Your task to perform on an android device: Open calendar and show me the second week of next month Image 0: 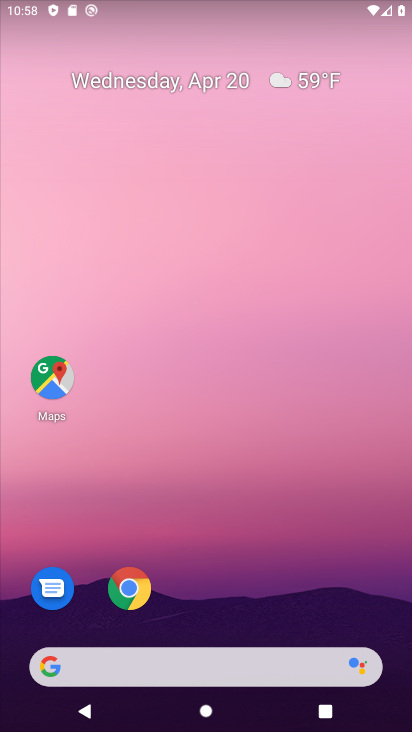
Step 0: drag from (223, 728) to (223, 129)
Your task to perform on an android device: Open calendar and show me the second week of next month Image 1: 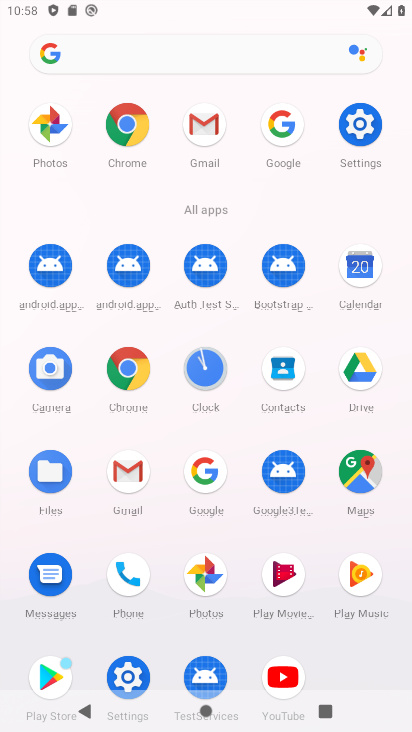
Step 1: click (359, 270)
Your task to perform on an android device: Open calendar and show me the second week of next month Image 2: 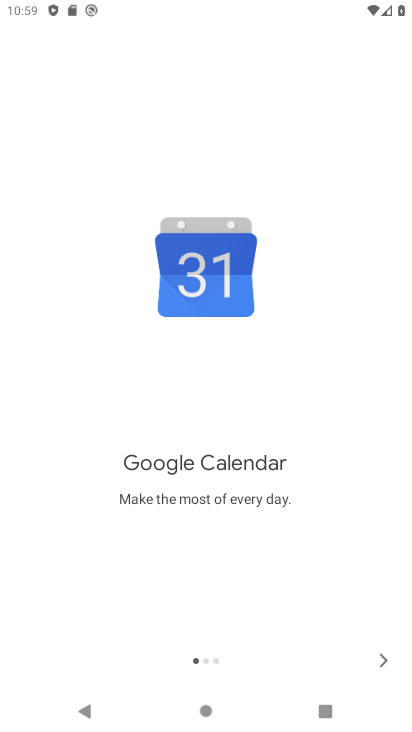
Step 2: click (382, 656)
Your task to perform on an android device: Open calendar and show me the second week of next month Image 3: 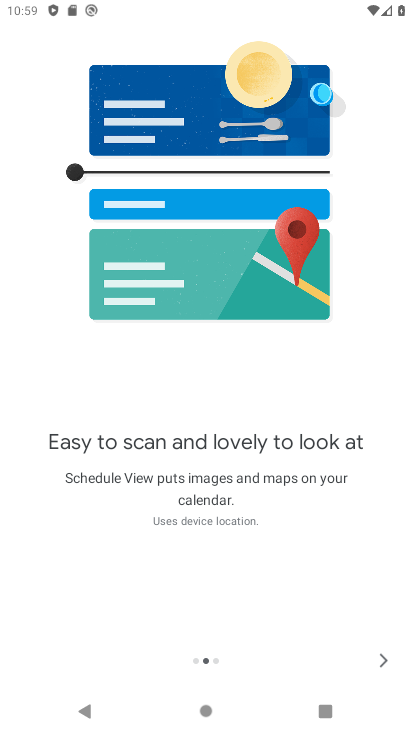
Step 3: click (382, 656)
Your task to perform on an android device: Open calendar and show me the second week of next month Image 4: 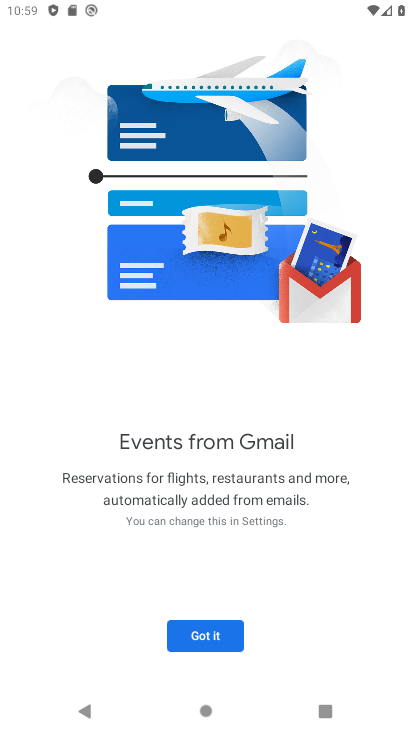
Step 4: click (213, 633)
Your task to perform on an android device: Open calendar and show me the second week of next month Image 5: 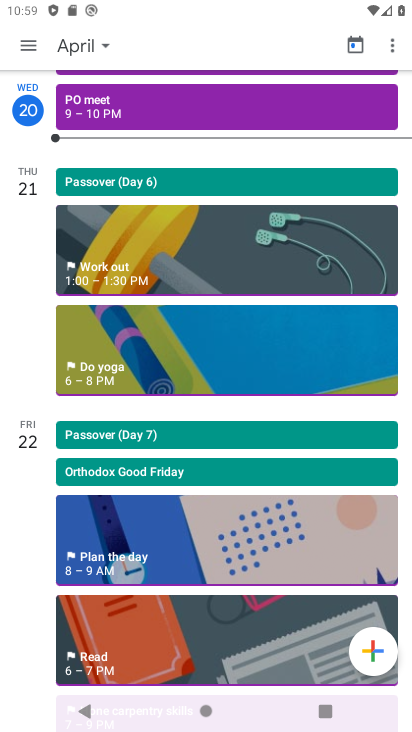
Step 5: click (80, 45)
Your task to perform on an android device: Open calendar and show me the second week of next month Image 6: 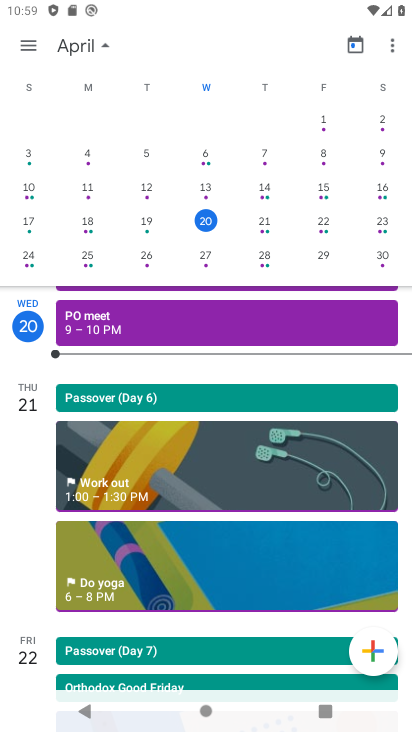
Step 6: drag from (360, 187) to (31, 222)
Your task to perform on an android device: Open calendar and show me the second week of next month Image 7: 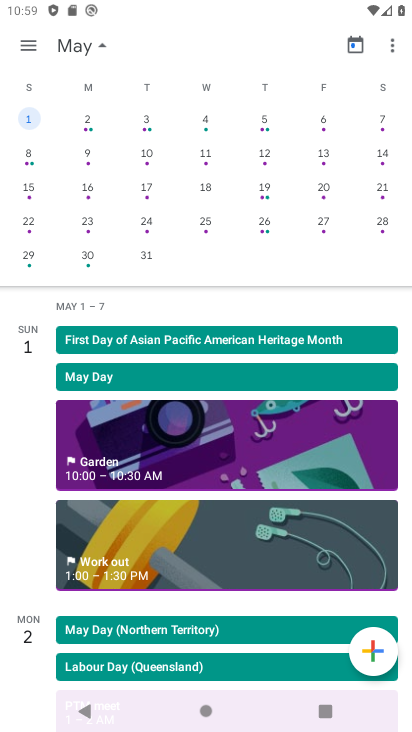
Step 7: click (88, 150)
Your task to perform on an android device: Open calendar and show me the second week of next month Image 8: 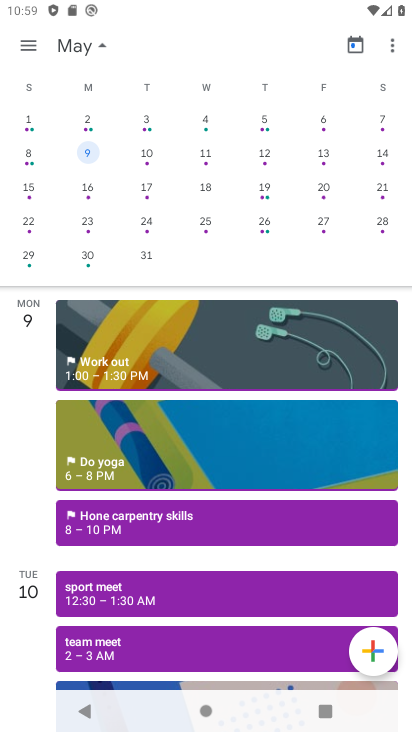
Step 8: task complete